Your task to perform on an android device: Go to eBay Image 0: 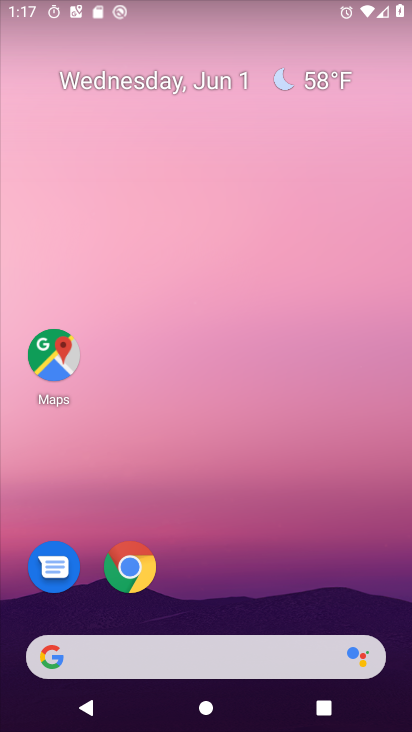
Step 0: drag from (248, 602) to (164, 76)
Your task to perform on an android device: Go to eBay Image 1: 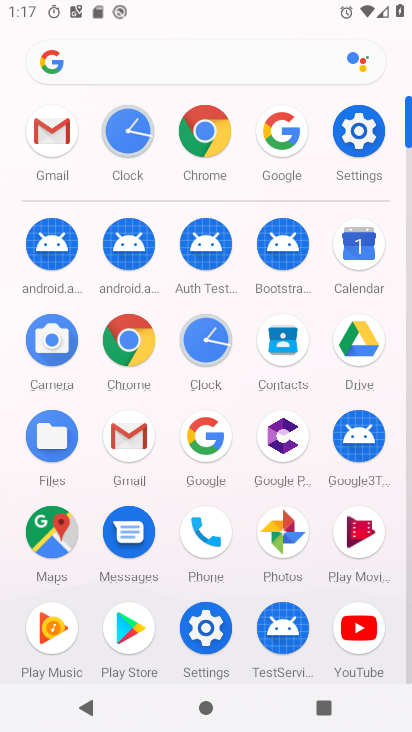
Step 1: click (206, 438)
Your task to perform on an android device: Go to eBay Image 2: 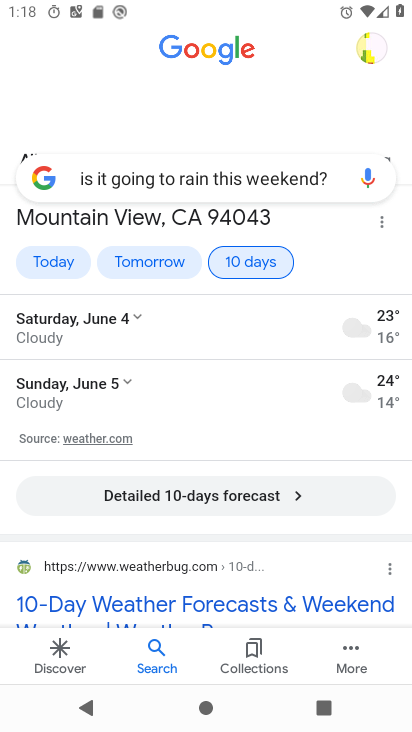
Step 2: click (325, 183)
Your task to perform on an android device: Go to eBay Image 3: 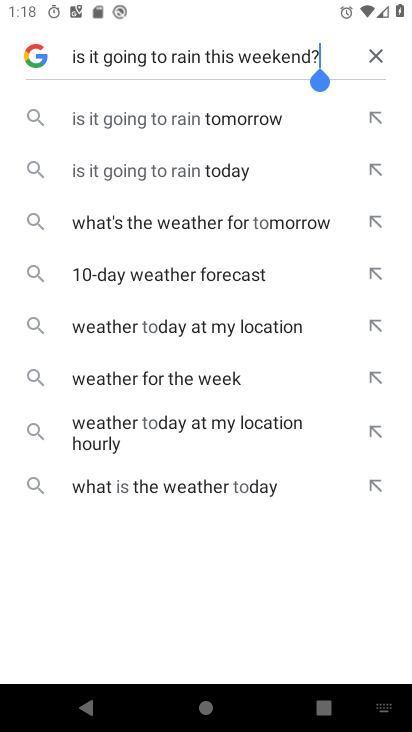
Step 3: click (368, 59)
Your task to perform on an android device: Go to eBay Image 4: 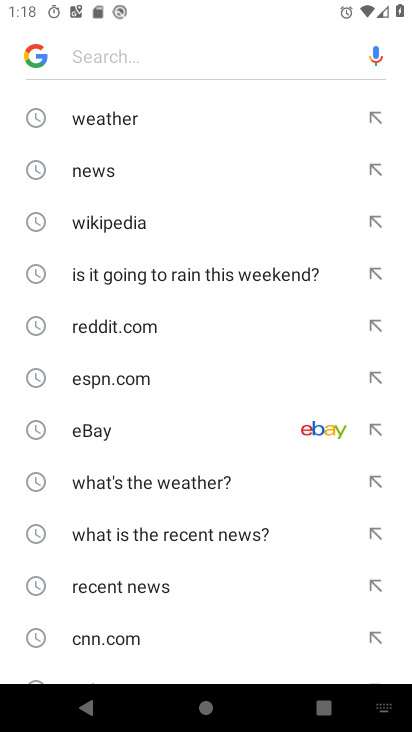
Step 4: click (147, 427)
Your task to perform on an android device: Go to eBay Image 5: 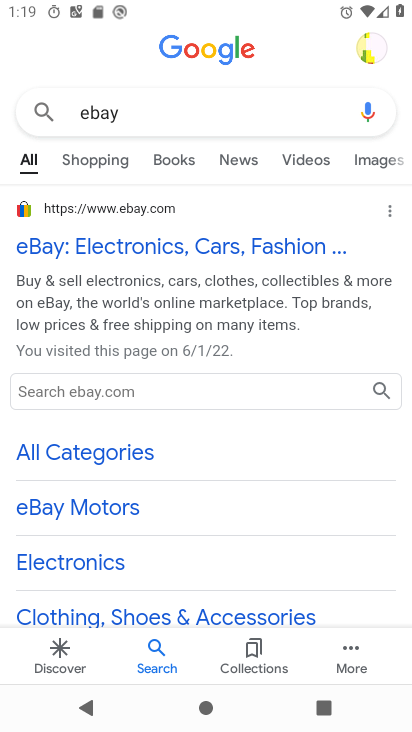
Step 5: task complete